Your task to perform on an android device: Check the news Image 0: 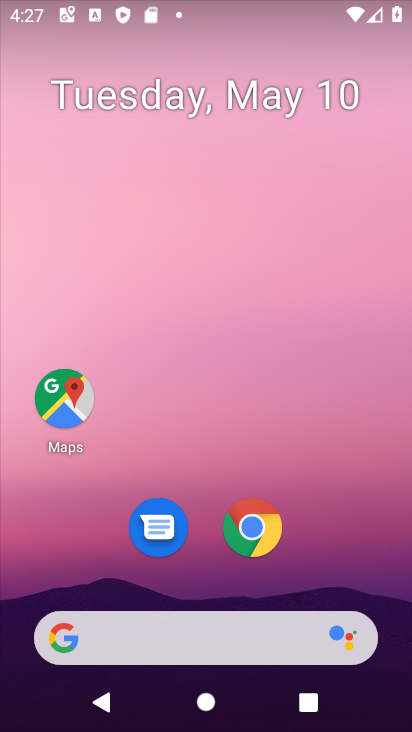
Step 0: click (258, 648)
Your task to perform on an android device: Check the news Image 1: 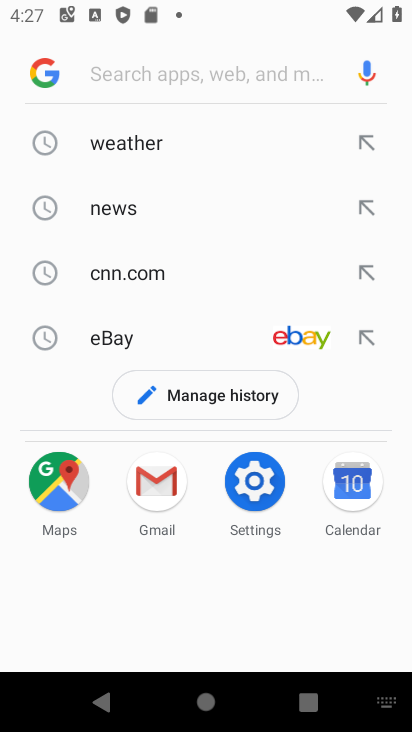
Step 1: click (105, 204)
Your task to perform on an android device: Check the news Image 2: 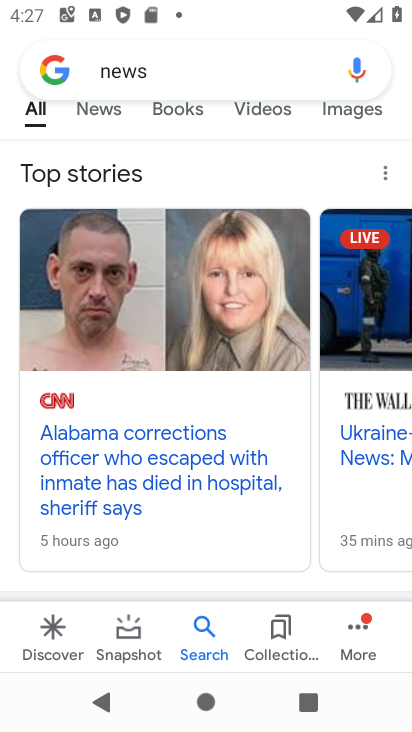
Step 2: click (91, 99)
Your task to perform on an android device: Check the news Image 3: 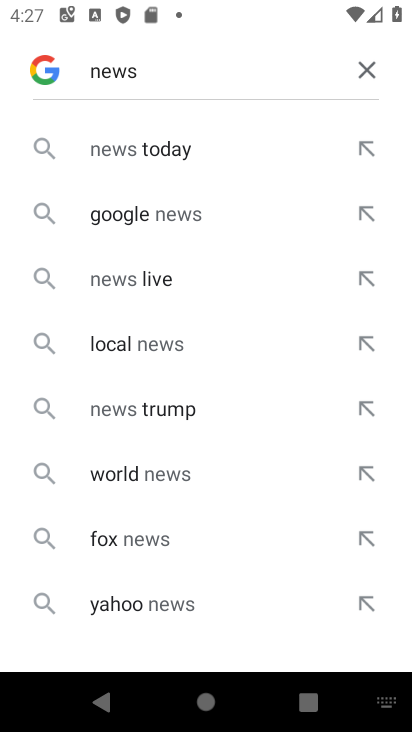
Step 3: click (138, 209)
Your task to perform on an android device: Check the news Image 4: 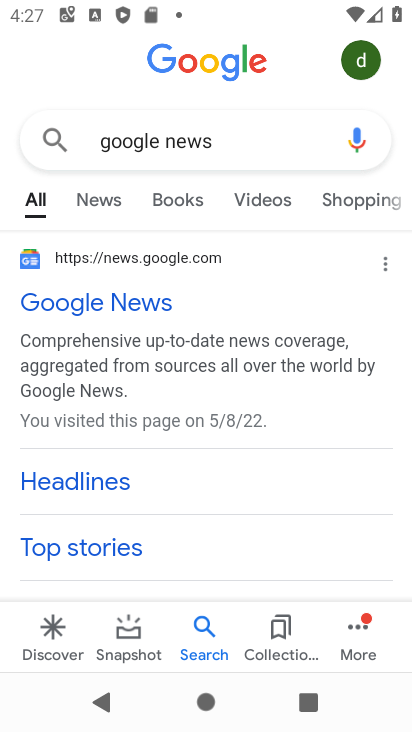
Step 4: click (104, 187)
Your task to perform on an android device: Check the news Image 5: 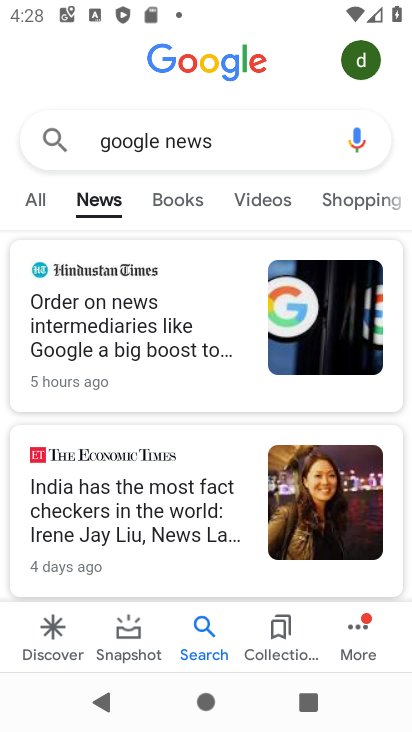
Step 5: task complete